Your task to perform on an android device: Open settings Image 0: 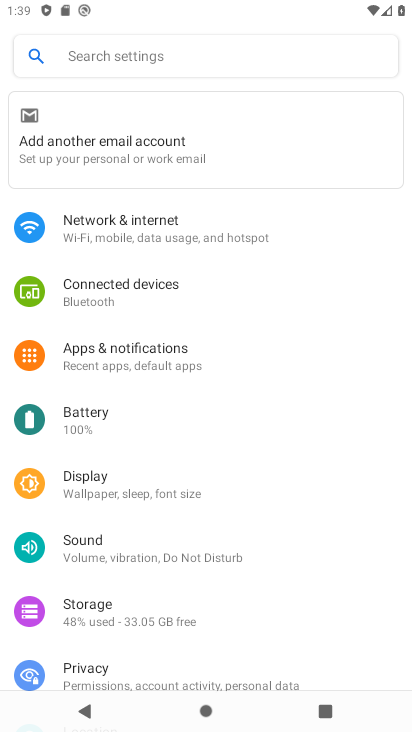
Step 0: task complete